Your task to perform on an android device: Search for sushi restaurants on Maps Image 0: 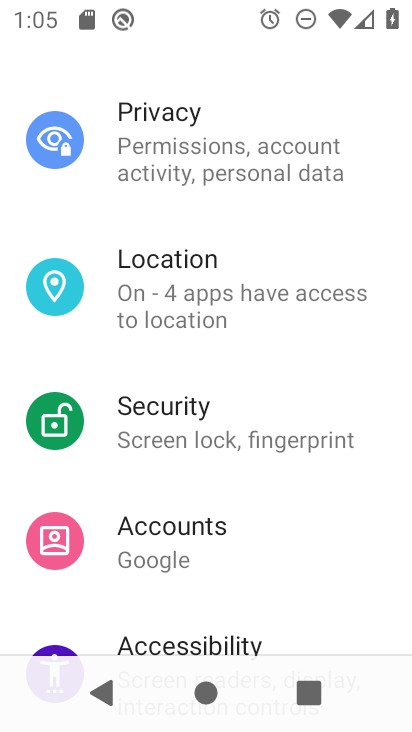
Step 0: press home button
Your task to perform on an android device: Search for sushi restaurants on Maps Image 1: 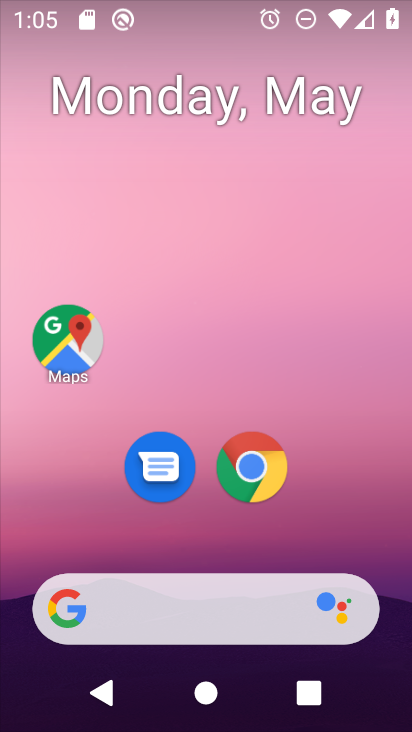
Step 1: click (67, 342)
Your task to perform on an android device: Search for sushi restaurants on Maps Image 2: 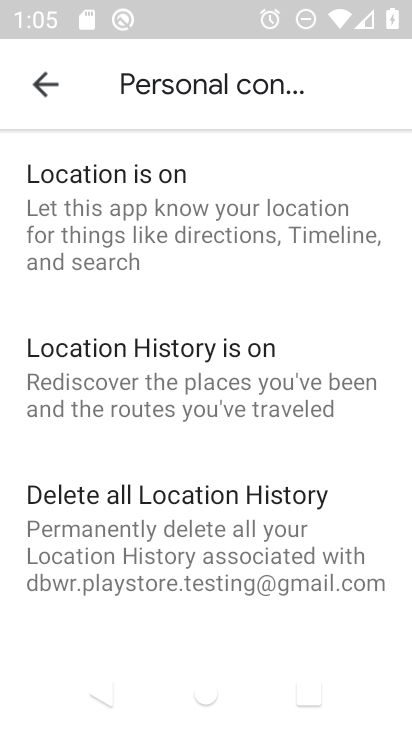
Step 2: click (39, 90)
Your task to perform on an android device: Search for sushi restaurants on Maps Image 3: 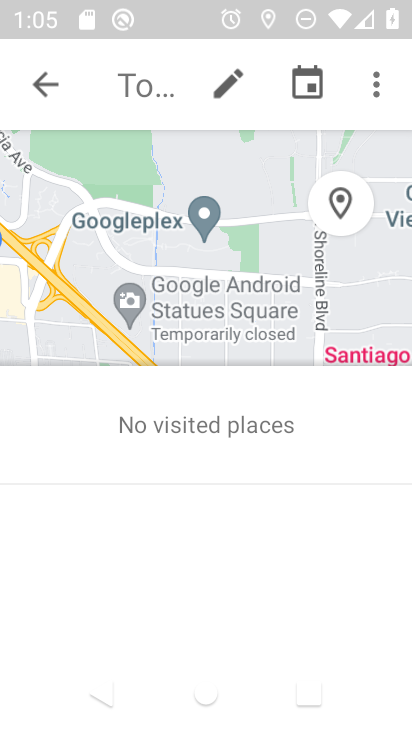
Step 3: click (48, 89)
Your task to perform on an android device: Search for sushi restaurants on Maps Image 4: 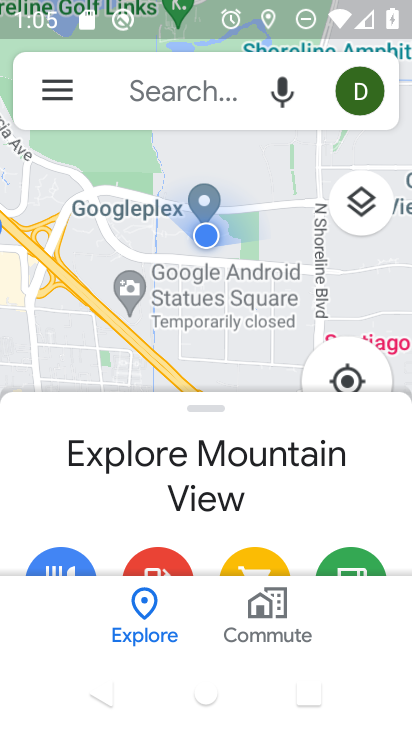
Step 4: click (138, 94)
Your task to perform on an android device: Search for sushi restaurants on Maps Image 5: 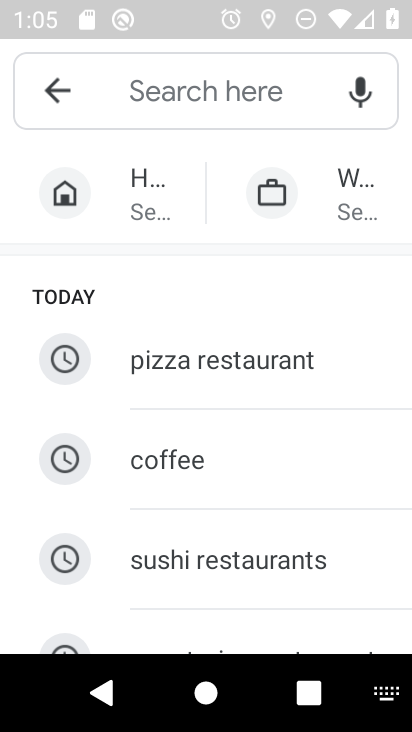
Step 5: type "sushi restaurant "
Your task to perform on an android device: Search for sushi restaurants on Maps Image 6: 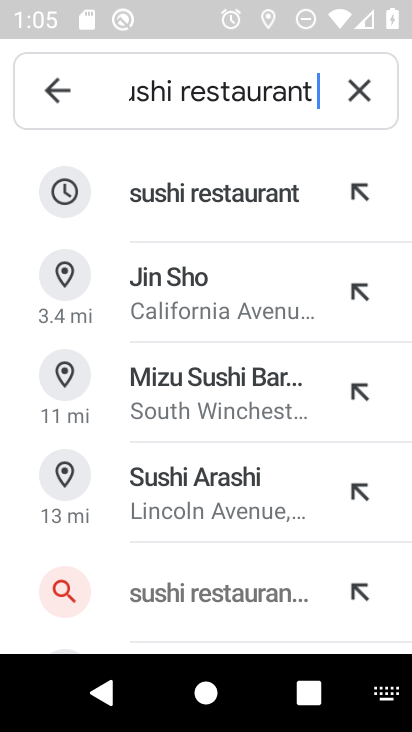
Step 6: click (172, 202)
Your task to perform on an android device: Search for sushi restaurants on Maps Image 7: 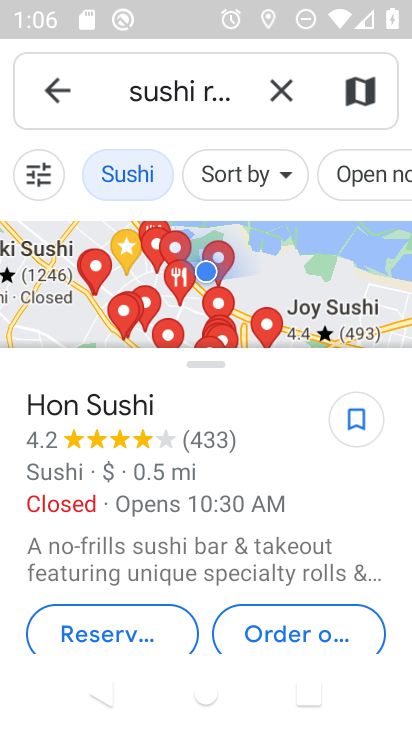
Step 7: task complete